Your task to perform on an android device: Go to calendar. Show me events next week Image 0: 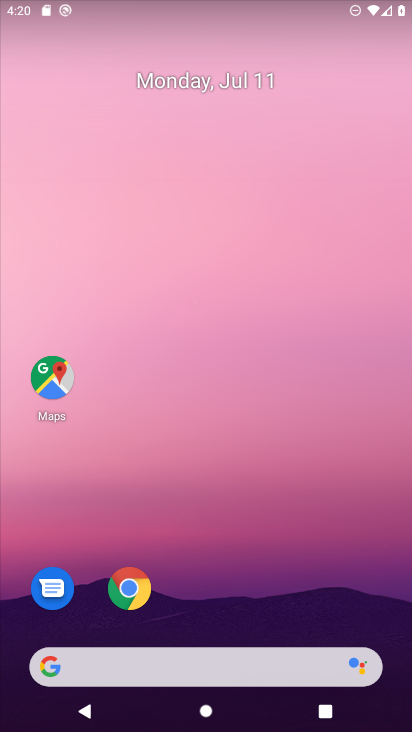
Step 0: drag from (268, 712) to (269, 7)
Your task to perform on an android device: Go to calendar. Show me events next week Image 1: 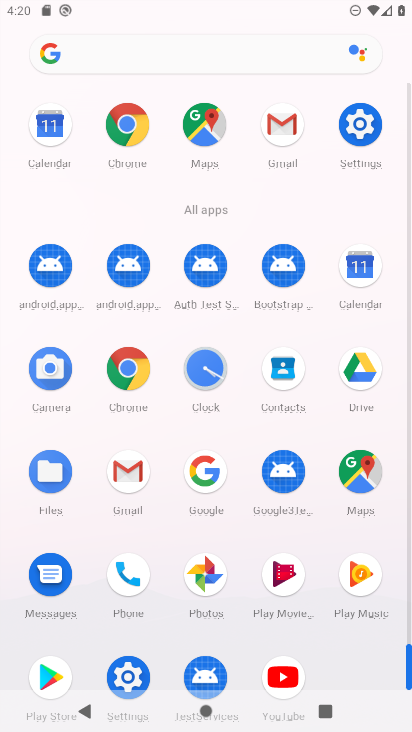
Step 1: click (359, 274)
Your task to perform on an android device: Go to calendar. Show me events next week Image 2: 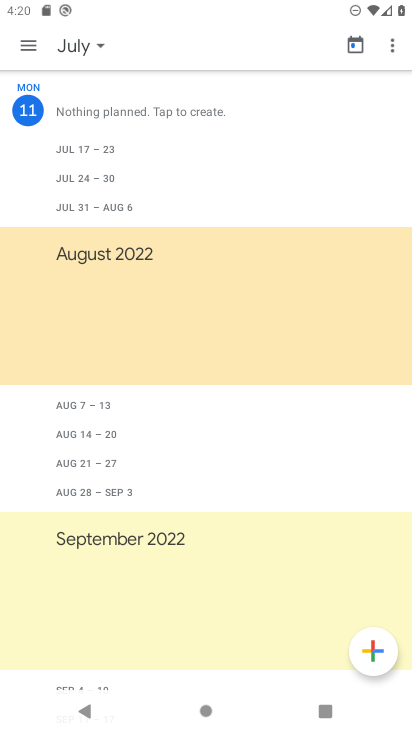
Step 2: click (75, 46)
Your task to perform on an android device: Go to calendar. Show me events next week Image 3: 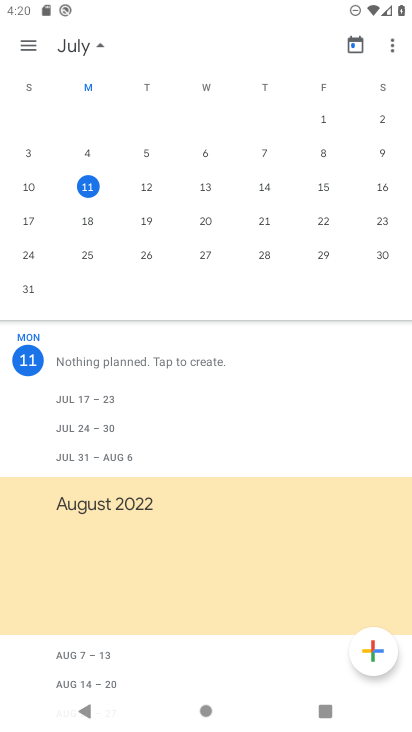
Step 3: click (89, 218)
Your task to perform on an android device: Go to calendar. Show me events next week Image 4: 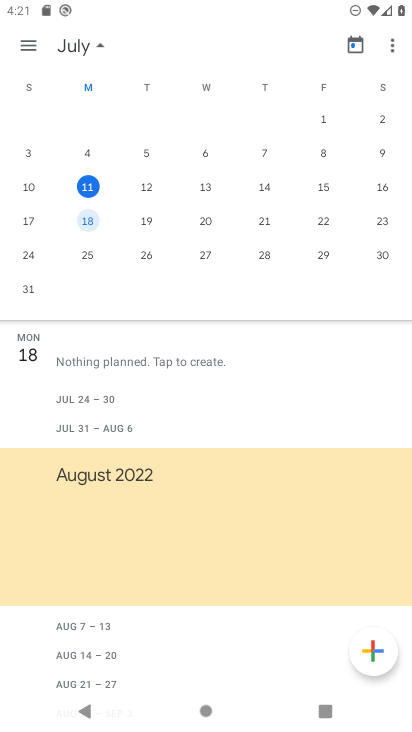
Step 4: click (94, 222)
Your task to perform on an android device: Go to calendar. Show me events next week Image 5: 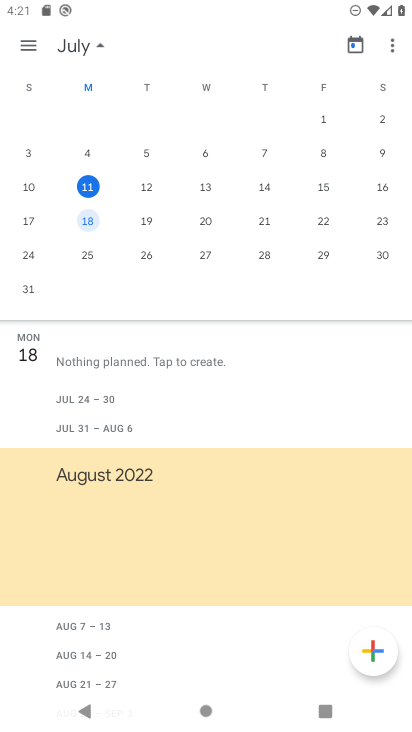
Step 5: task complete